Your task to perform on an android device: turn vacation reply on in the gmail app Image 0: 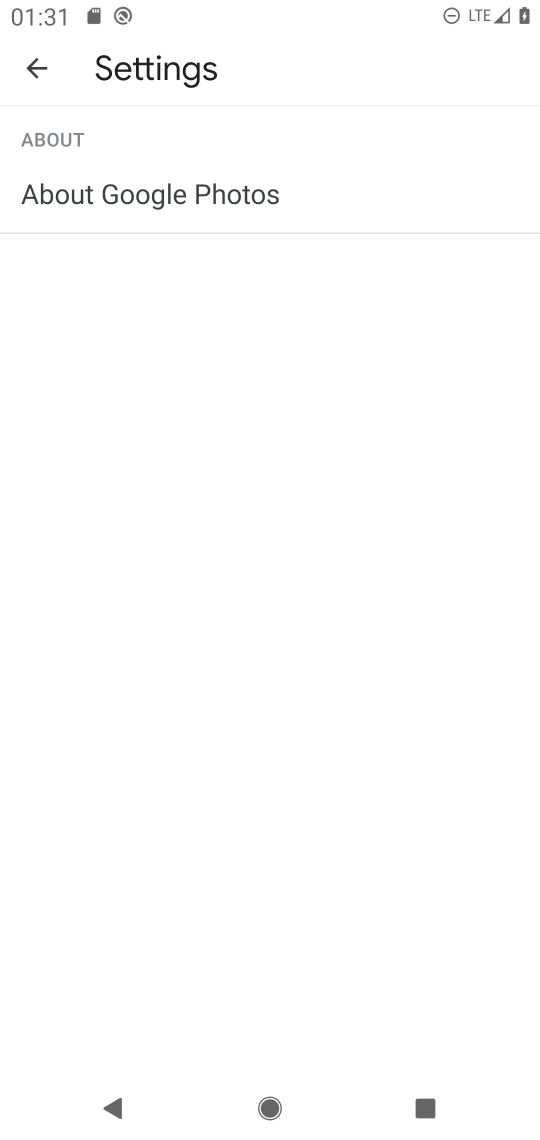
Step 0: press home button
Your task to perform on an android device: turn vacation reply on in the gmail app Image 1: 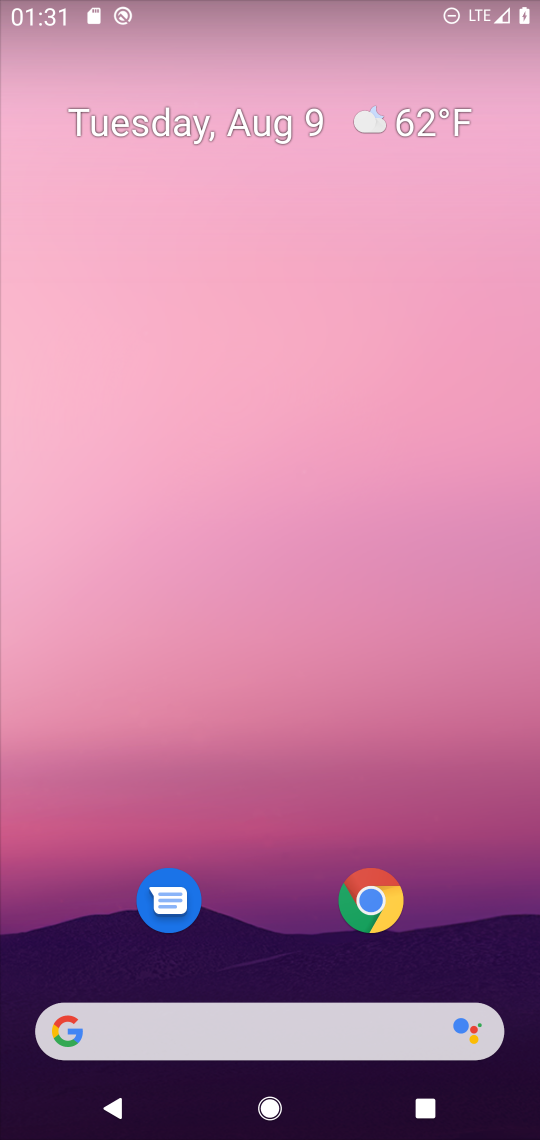
Step 1: drag from (257, 819) to (290, 204)
Your task to perform on an android device: turn vacation reply on in the gmail app Image 2: 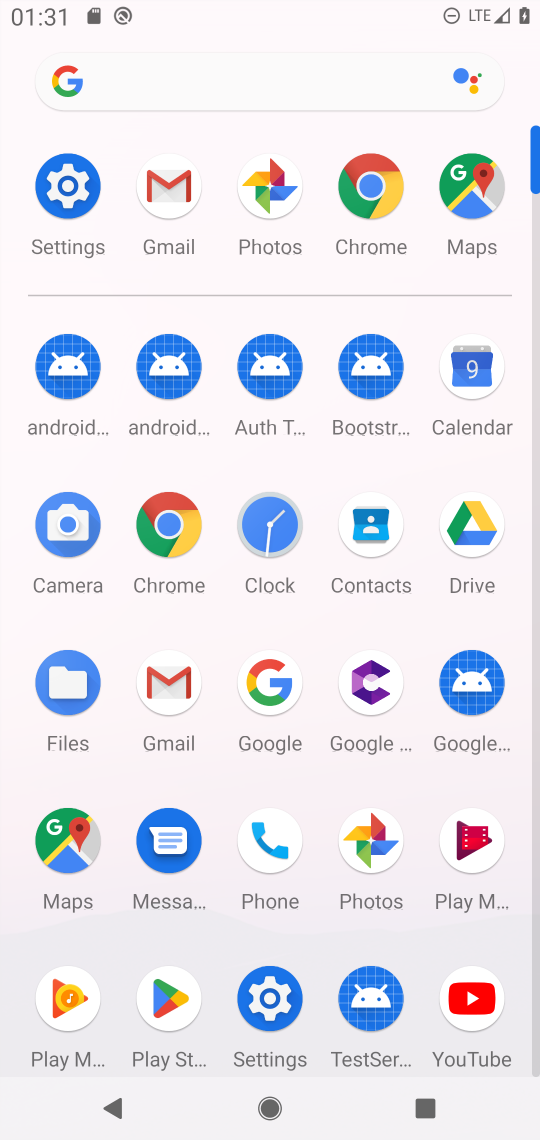
Step 2: click (154, 694)
Your task to perform on an android device: turn vacation reply on in the gmail app Image 3: 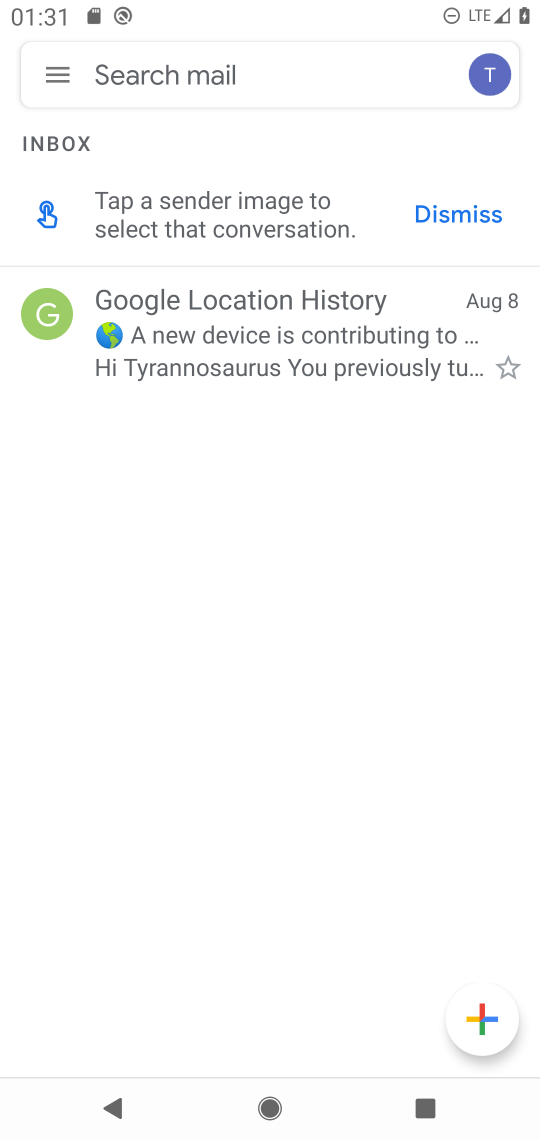
Step 3: click (57, 61)
Your task to perform on an android device: turn vacation reply on in the gmail app Image 4: 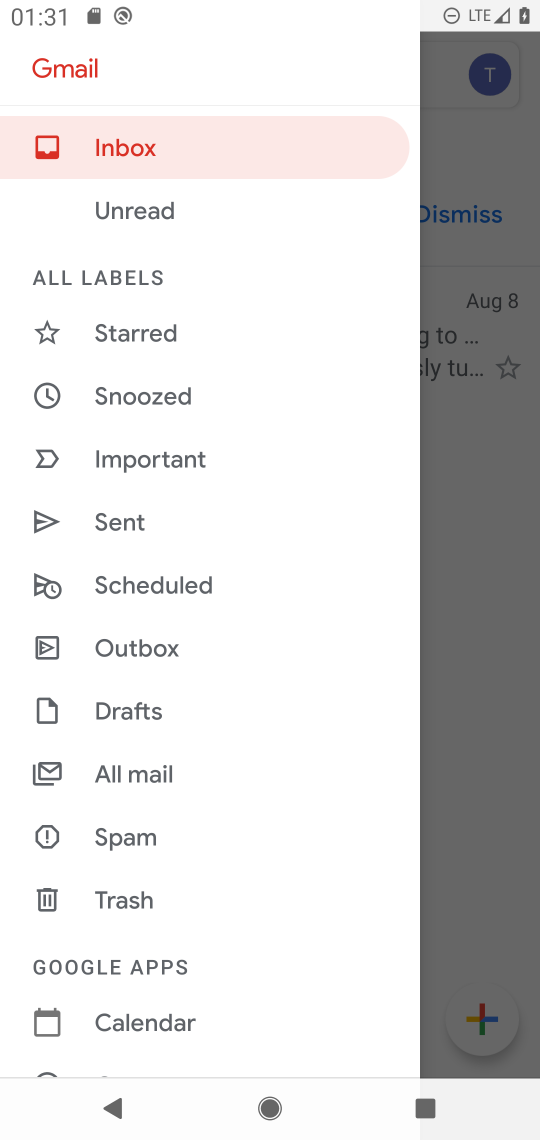
Step 4: drag from (291, 847) to (278, 436)
Your task to perform on an android device: turn vacation reply on in the gmail app Image 5: 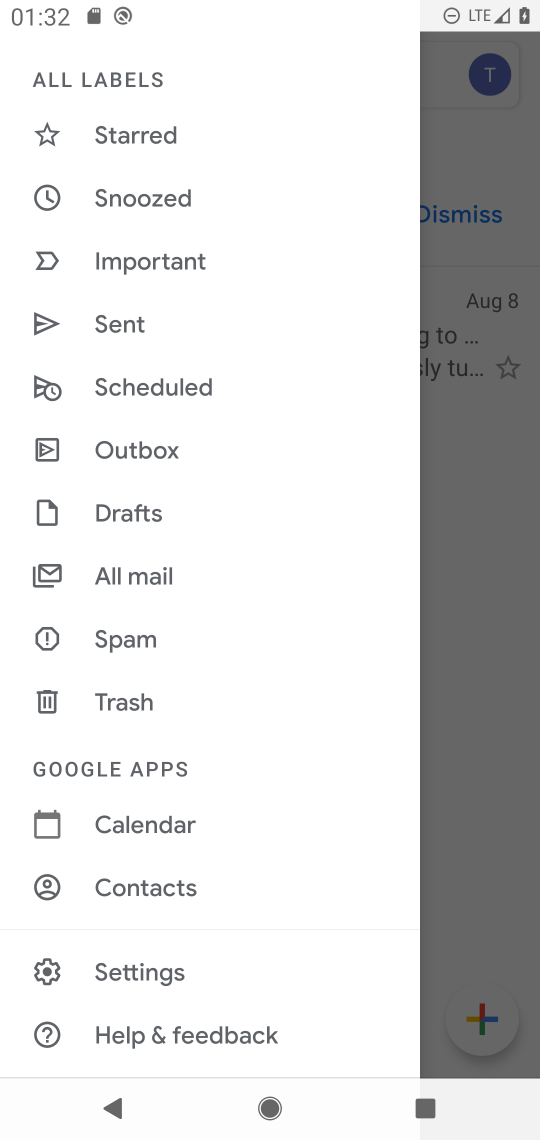
Step 5: click (163, 982)
Your task to perform on an android device: turn vacation reply on in the gmail app Image 6: 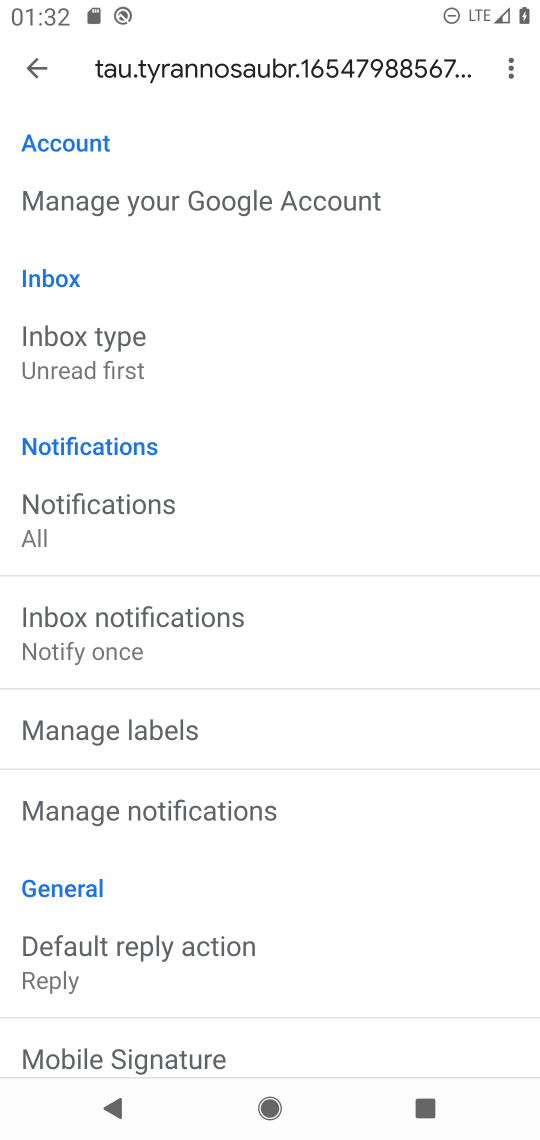
Step 6: drag from (379, 782) to (374, 424)
Your task to perform on an android device: turn vacation reply on in the gmail app Image 7: 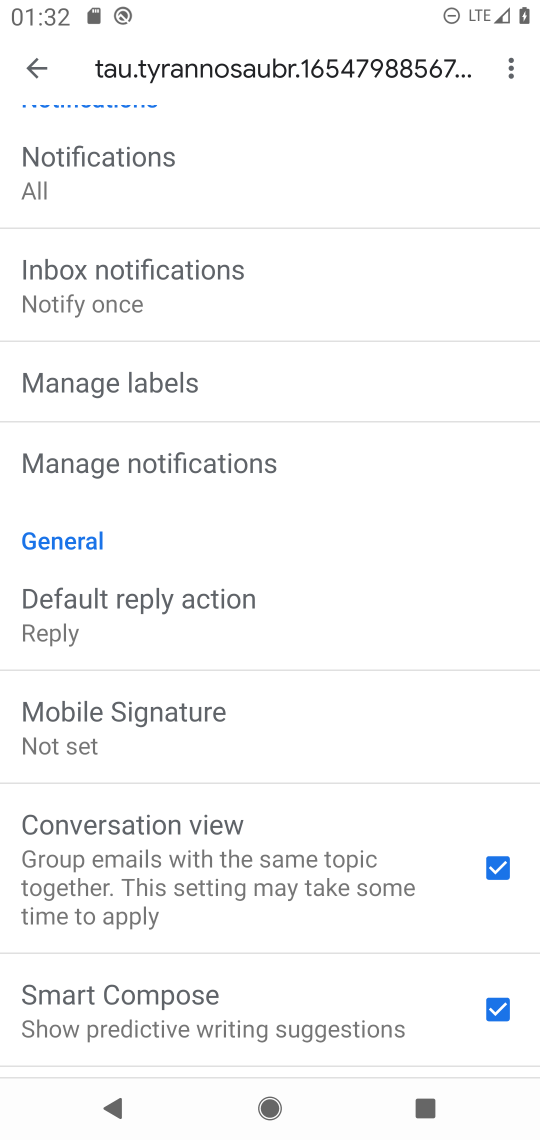
Step 7: drag from (349, 841) to (358, 422)
Your task to perform on an android device: turn vacation reply on in the gmail app Image 8: 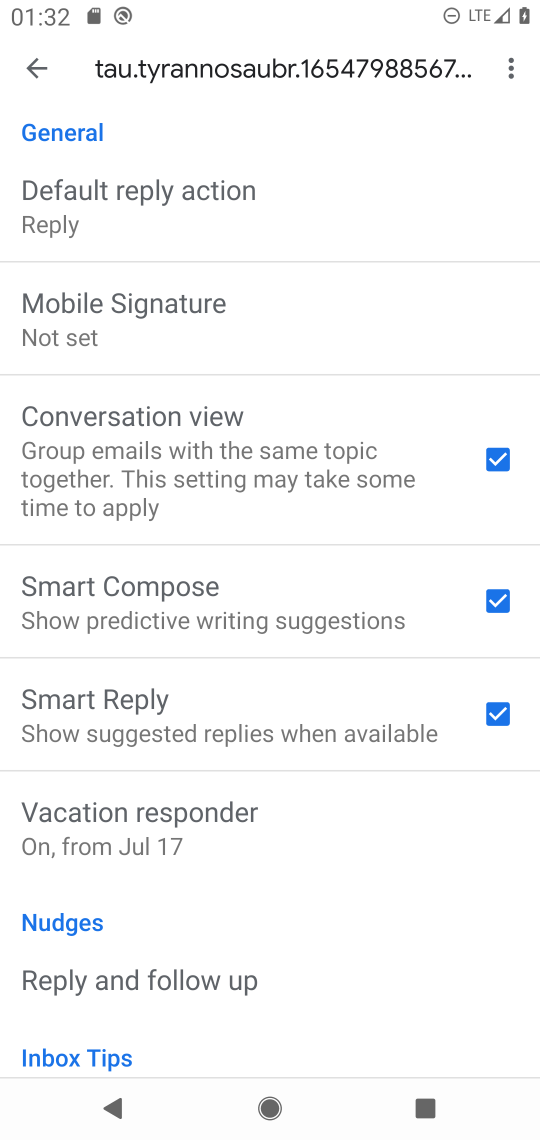
Step 8: drag from (349, 903) to (312, 538)
Your task to perform on an android device: turn vacation reply on in the gmail app Image 9: 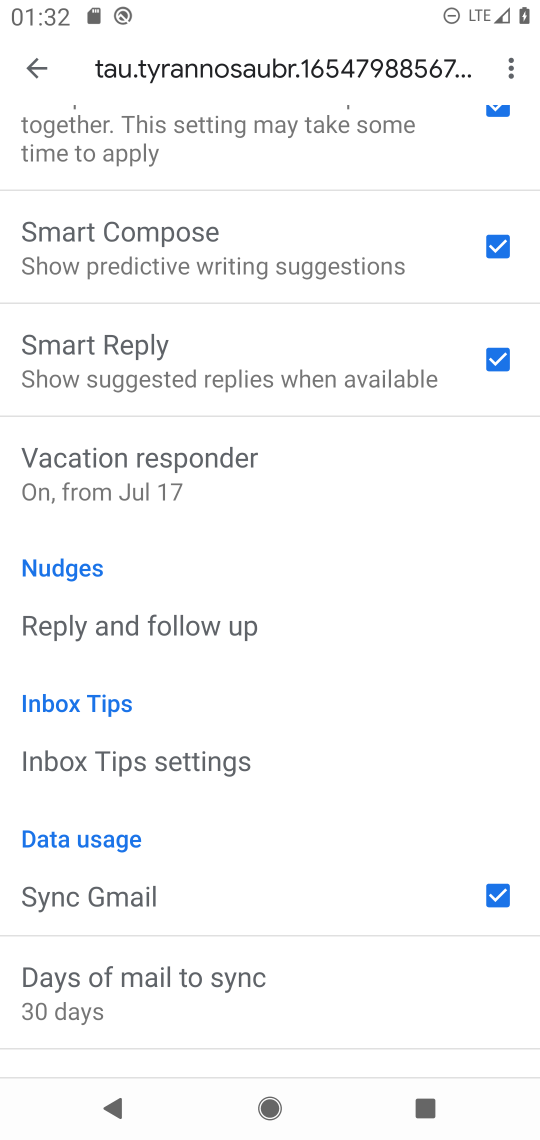
Step 9: click (176, 480)
Your task to perform on an android device: turn vacation reply on in the gmail app Image 10: 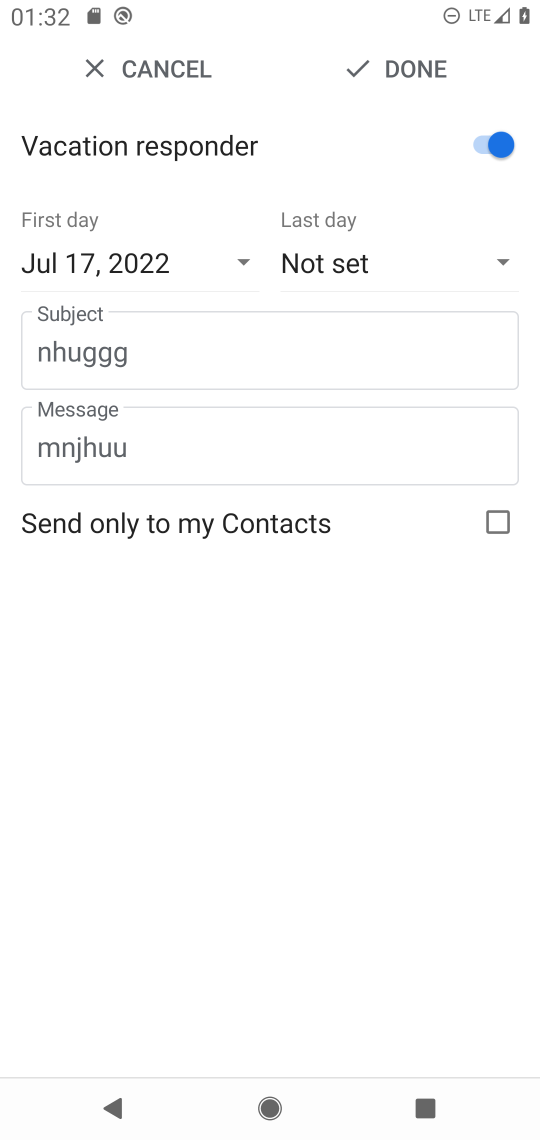
Step 10: task complete